Your task to perform on an android device: Go to Reddit.com Image 0: 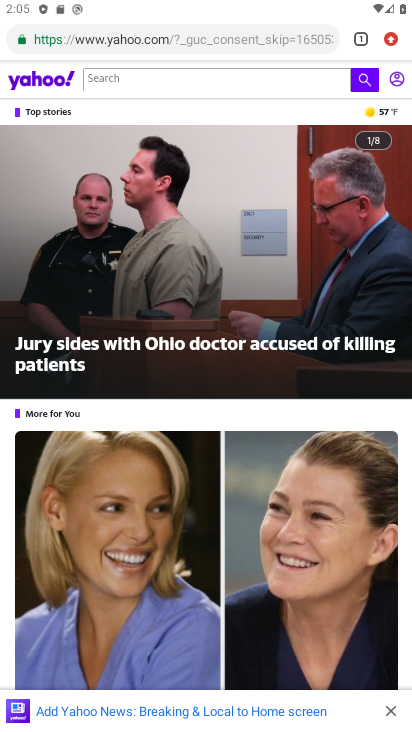
Step 0: click (245, 41)
Your task to perform on an android device: Go to Reddit.com Image 1: 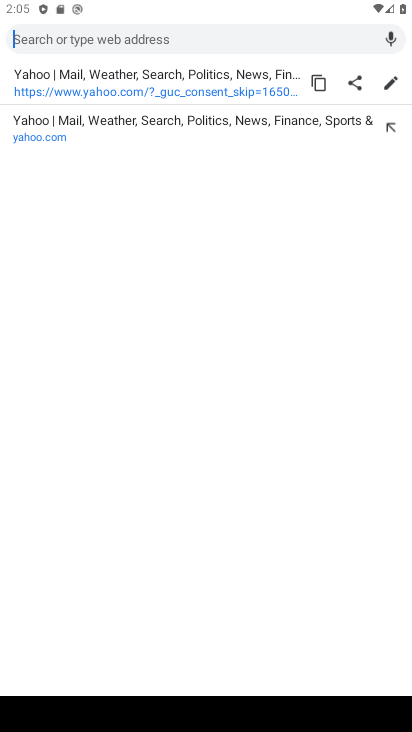
Step 1: type "reddit.com"
Your task to perform on an android device: Go to Reddit.com Image 2: 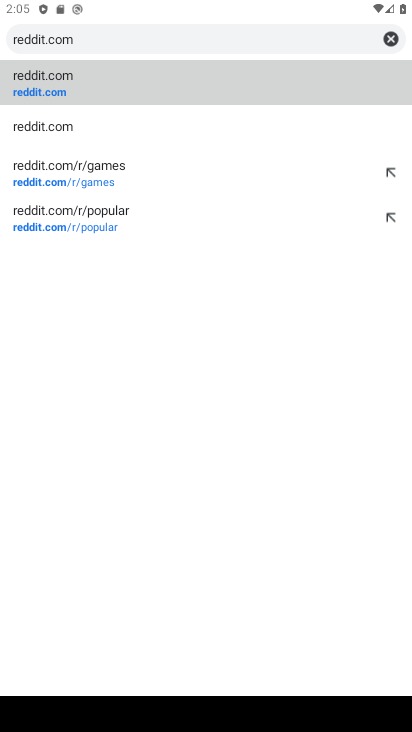
Step 2: click (99, 83)
Your task to perform on an android device: Go to Reddit.com Image 3: 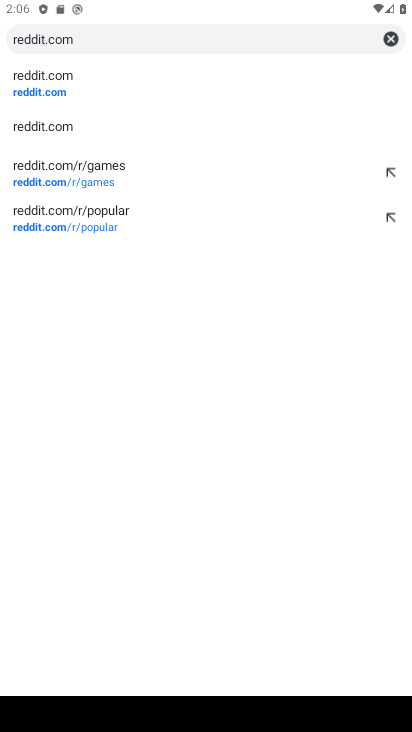
Step 3: task complete